Your task to perform on an android device: delete the emails in spam in the gmail app Image 0: 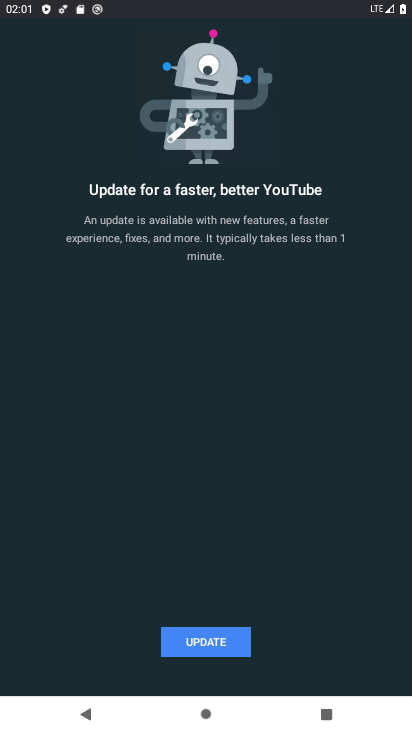
Step 0: press home button
Your task to perform on an android device: delete the emails in spam in the gmail app Image 1: 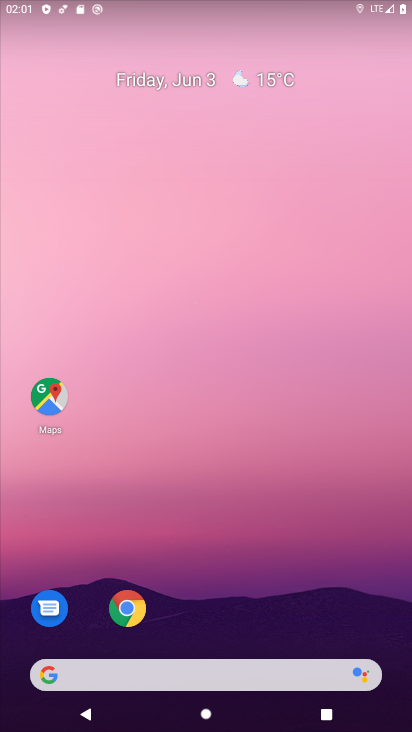
Step 1: drag from (205, 549) to (174, 87)
Your task to perform on an android device: delete the emails in spam in the gmail app Image 2: 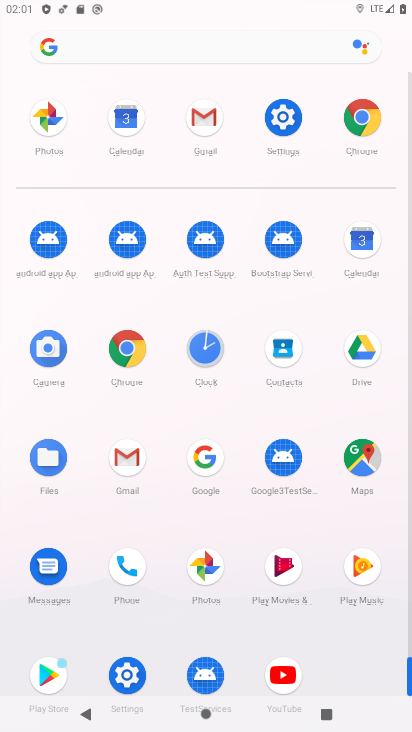
Step 2: click (203, 130)
Your task to perform on an android device: delete the emails in spam in the gmail app Image 3: 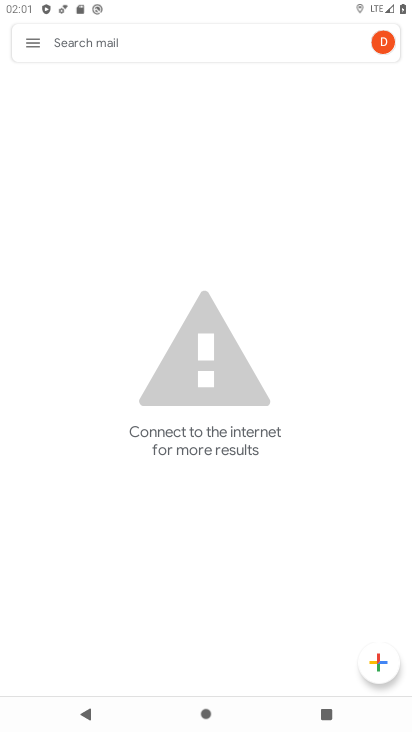
Step 3: click (28, 40)
Your task to perform on an android device: delete the emails in spam in the gmail app Image 4: 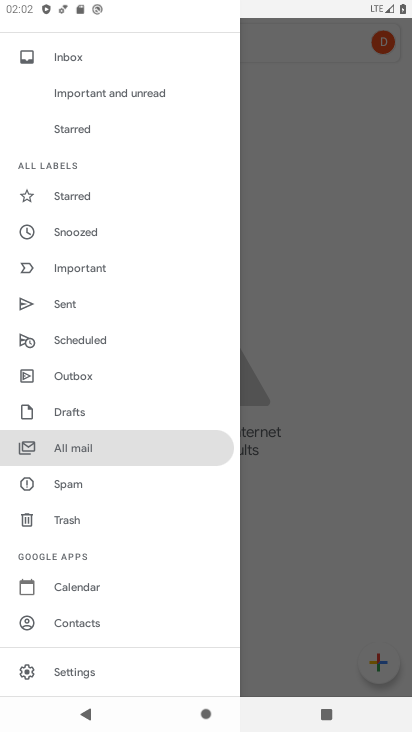
Step 4: click (94, 488)
Your task to perform on an android device: delete the emails in spam in the gmail app Image 5: 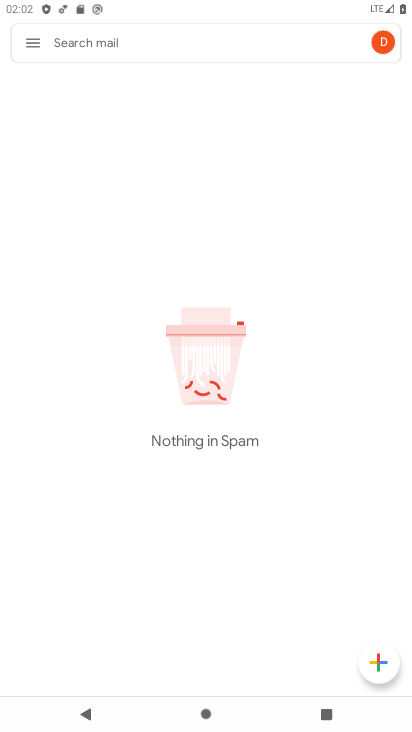
Step 5: task complete